Your task to perform on an android device: Open CNN.com Image 0: 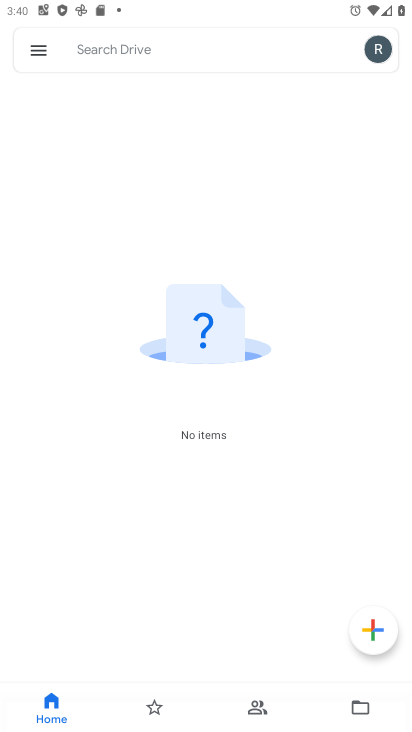
Step 0: press home button
Your task to perform on an android device: Open CNN.com Image 1: 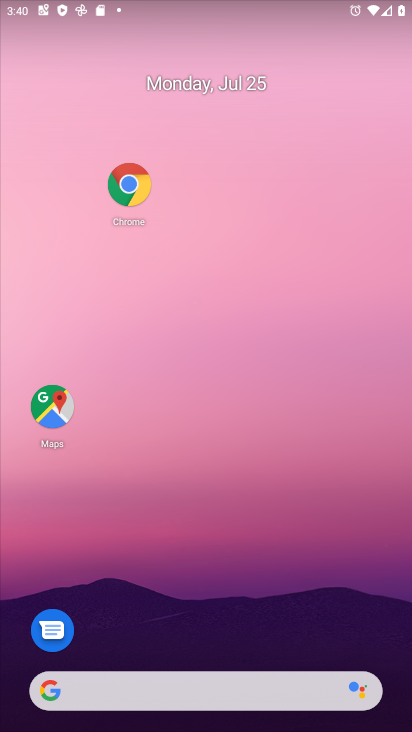
Step 1: click (135, 202)
Your task to perform on an android device: Open CNN.com Image 2: 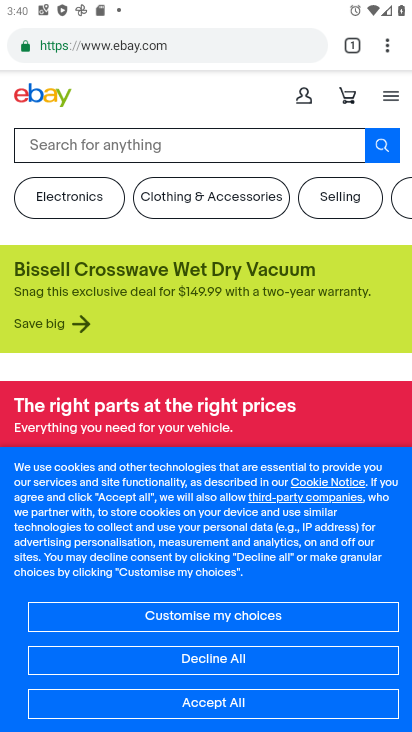
Step 2: click (201, 60)
Your task to perform on an android device: Open CNN.com Image 3: 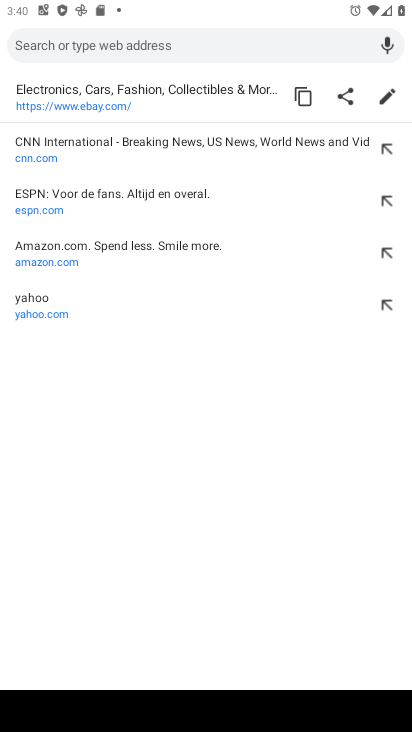
Step 3: type "cnn.com"
Your task to perform on an android device: Open CNN.com Image 4: 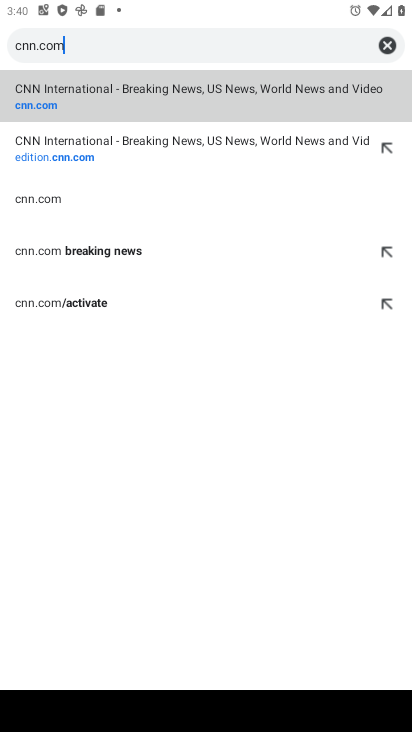
Step 4: click (222, 108)
Your task to perform on an android device: Open CNN.com Image 5: 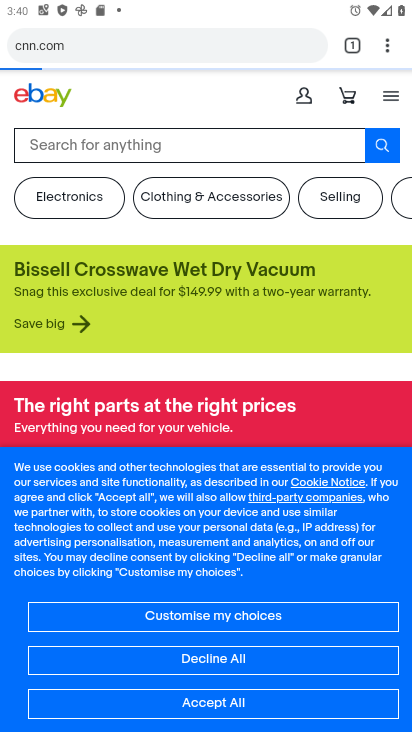
Step 5: task complete